Your task to perform on an android device: Clear the cart on costco.com. Search for "macbook" on costco.com, select the first entry, add it to the cart, then select checkout. Image 0: 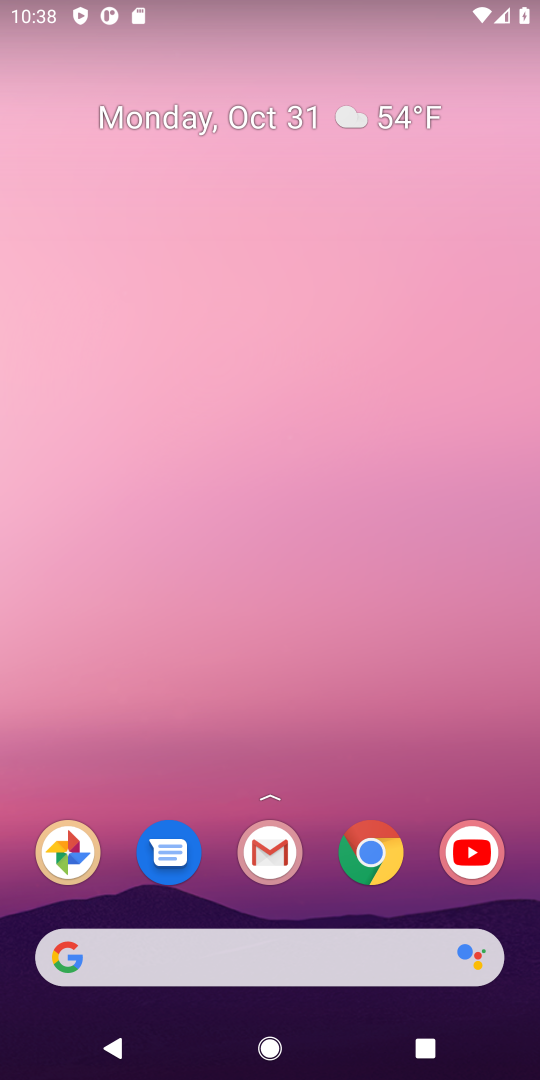
Step 0: click (362, 856)
Your task to perform on an android device: Clear the cart on costco.com. Search for "macbook" on costco.com, select the first entry, add it to the cart, then select checkout. Image 1: 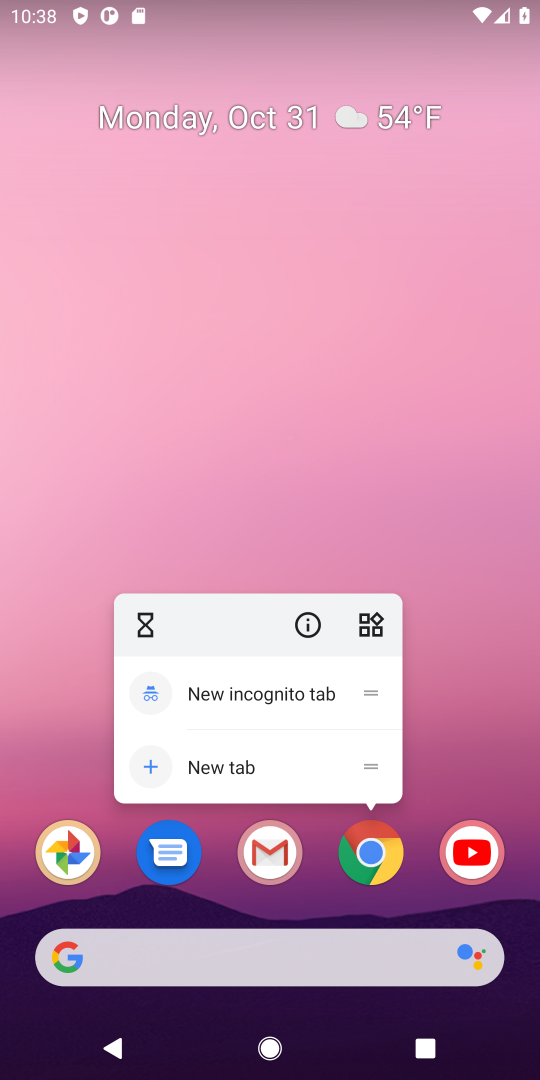
Step 1: click (378, 866)
Your task to perform on an android device: Clear the cart on costco.com. Search for "macbook" on costco.com, select the first entry, add it to the cart, then select checkout. Image 2: 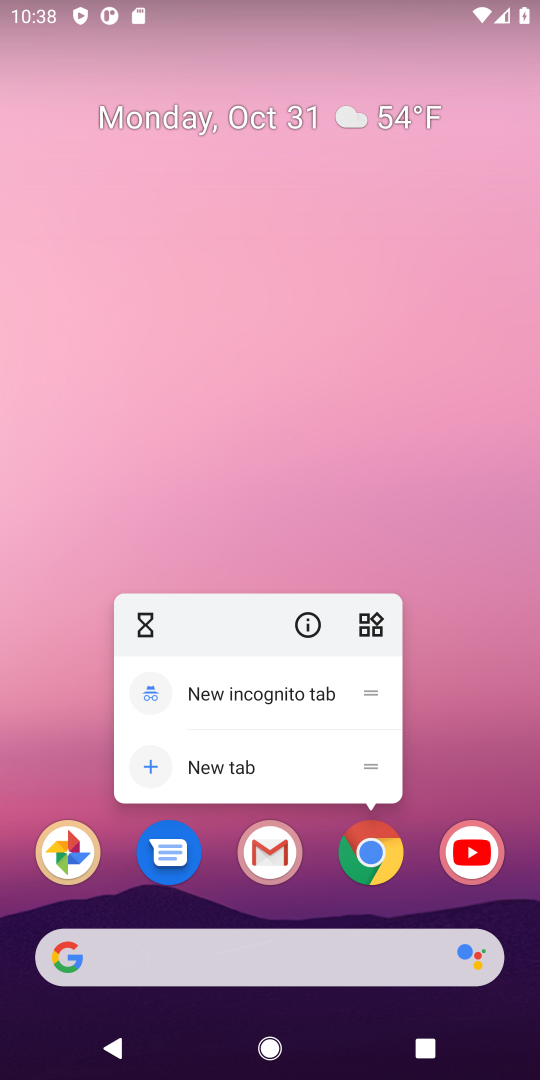
Step 2: click (366, 875)
Your task to perform on an android device: Clear the cart on costco.com. Search for "macbook" on costco.com, select the first entry, add it to the cart, then select checkout. Image 3: 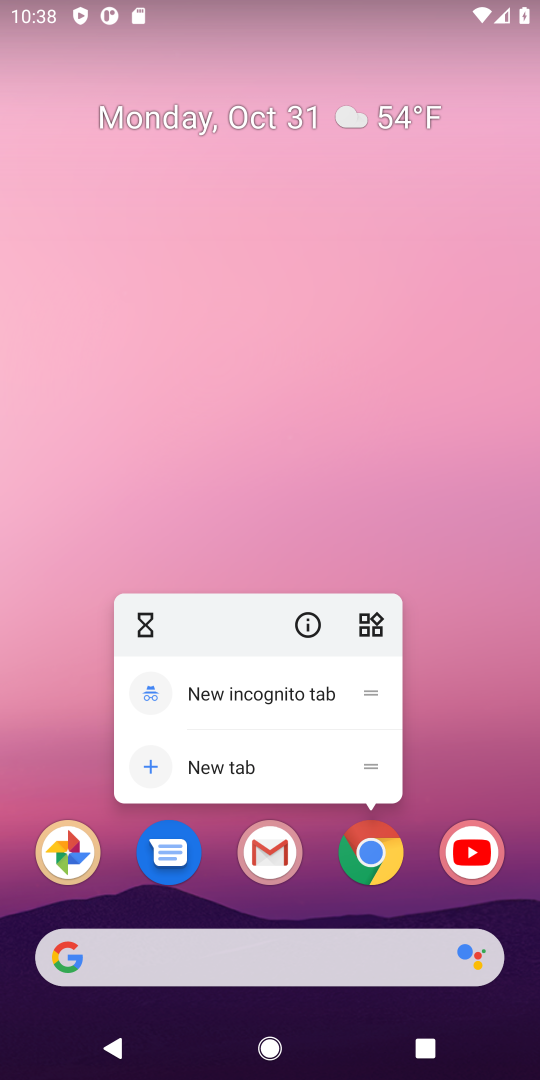
Step 3: click (372, 860)
Your task to perform on an android device: Clear the cart on costco.com. Search for "macbook" on costco.com, select the first entry, add it to the cart, then select checkout. Image 4: 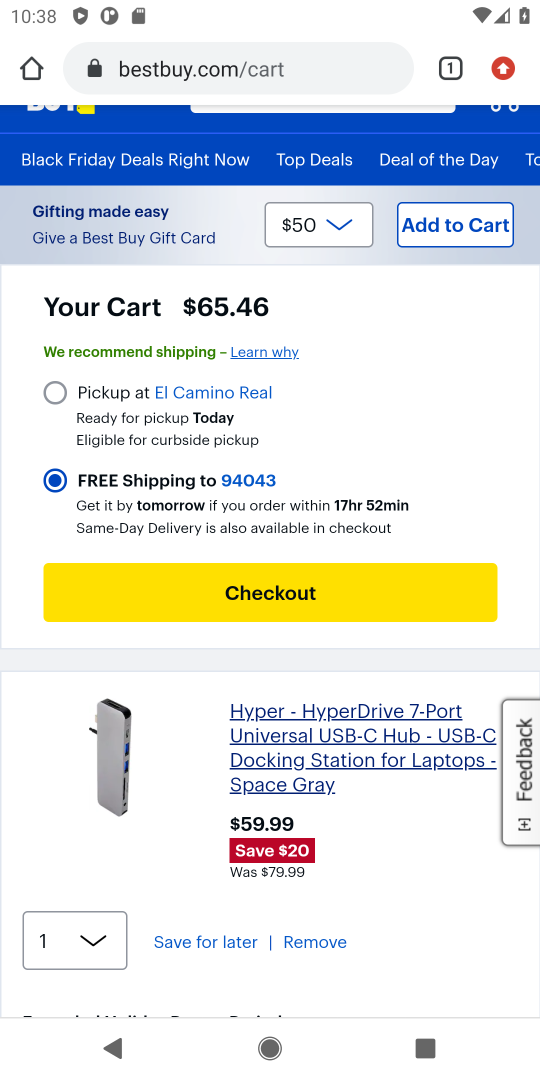
Step 4: click (245, 61)
Your task to perform on an android device: Clear the cart on costco.com. Search for "macbook" on costco.com, select the first entry, add it to the cart, then select checkout. Image 5: 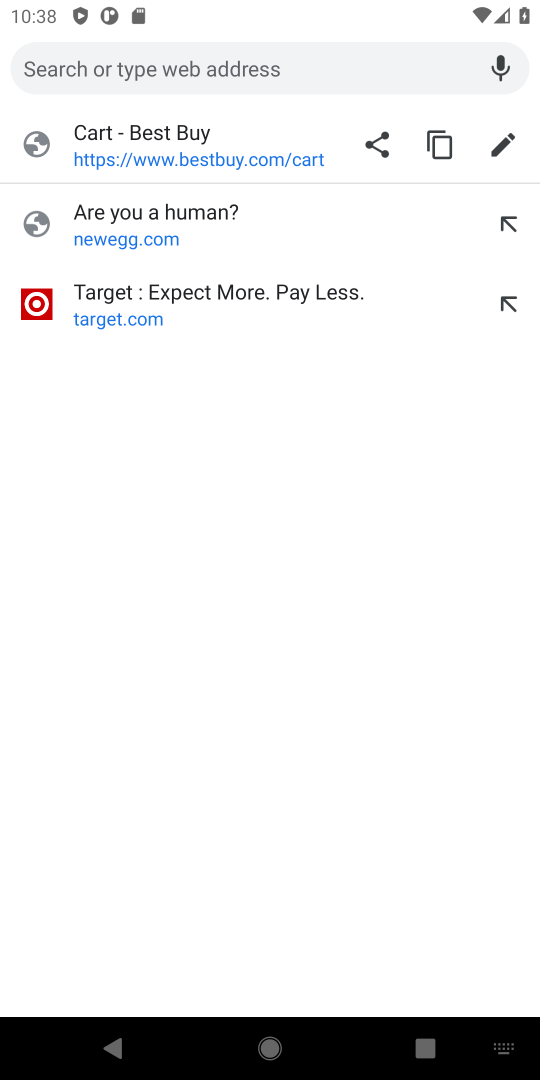
Step 5: type "costco.com"
Your task to perform on an android device: Clear the cart on costco.com. Search for "macbook" on costco.com, select the first entry, add it to the cart, then select checkout. Image 6: 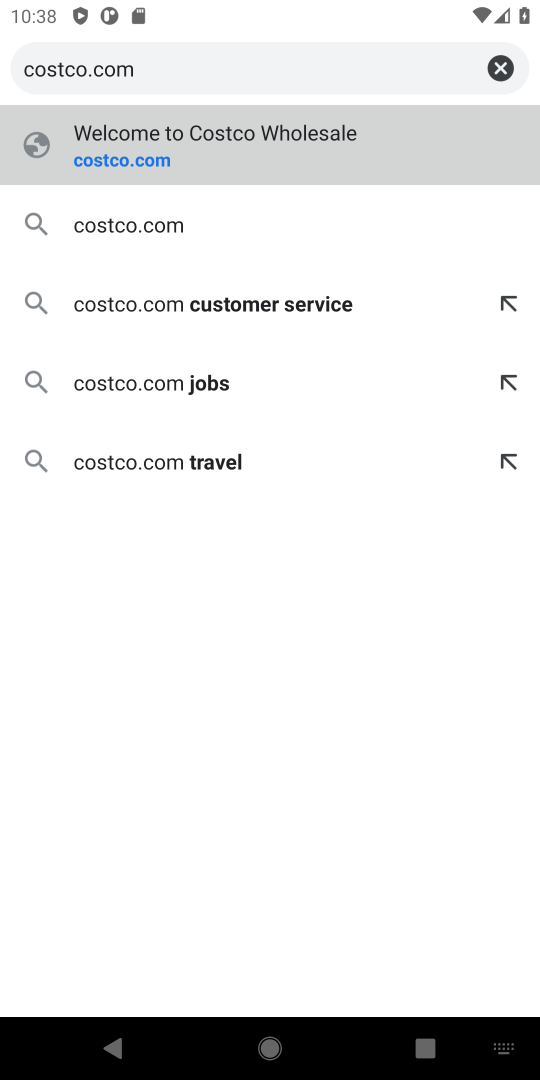
Step 6: type ""
Your task to perform on an android device: Clear the cart on costco.com. Search for "macbook" on costco.com, select the first entry, add it to the cart, then select checkout. Image 7: 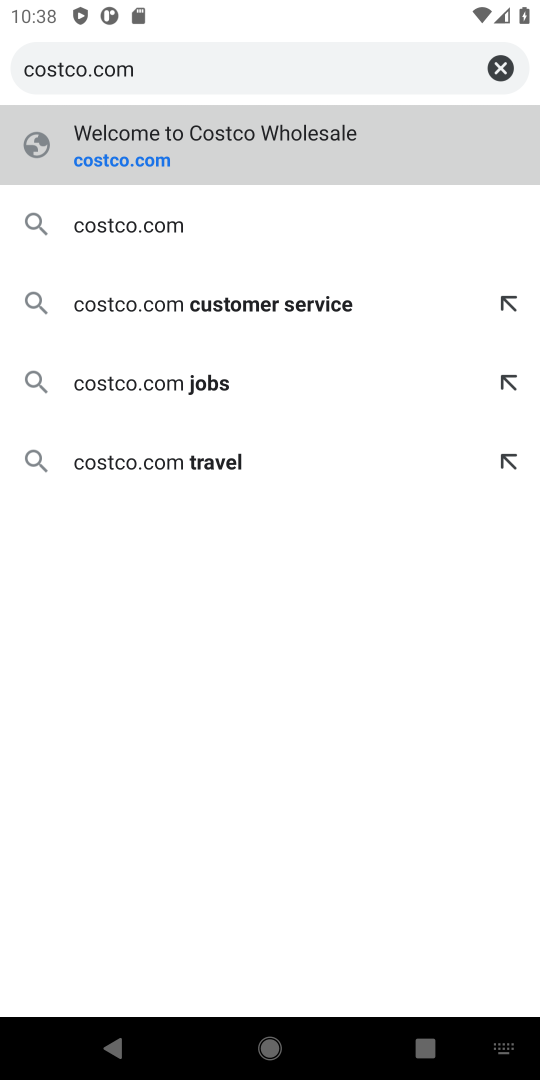
Step 7: press enter
Your task to perform on an android device: Clear the cart on costco.com. Search for "macbook" on costco.com, select the first entry, add it to the cart, then select checkout. Image 8: 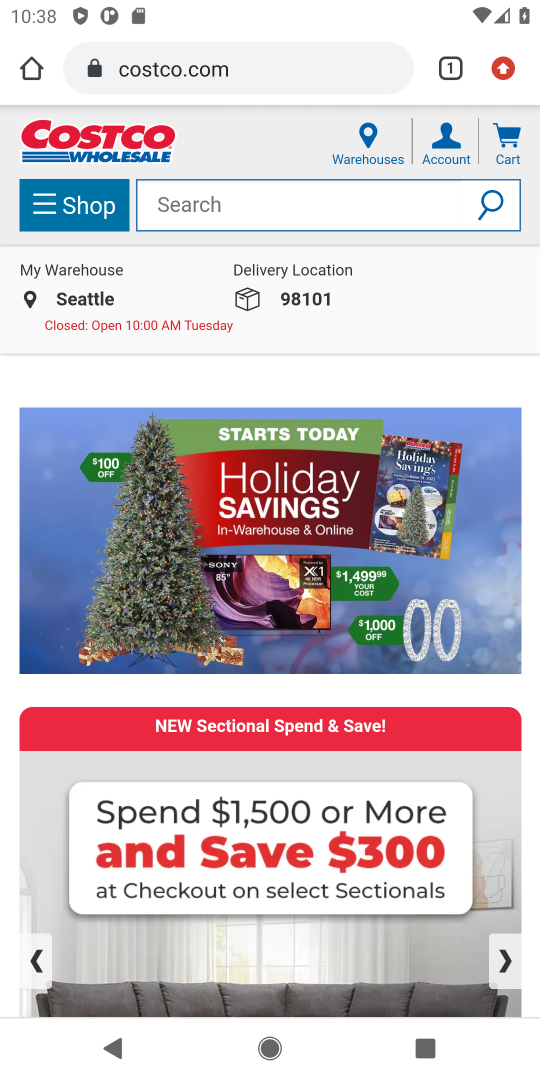
Step 8: click (231, 194)
Your task to perform on an android device: Clear the cart on costco.com. Search for "macbook" on costco.com, select the first entry, add it to the cart, then select checkout. Image 9: 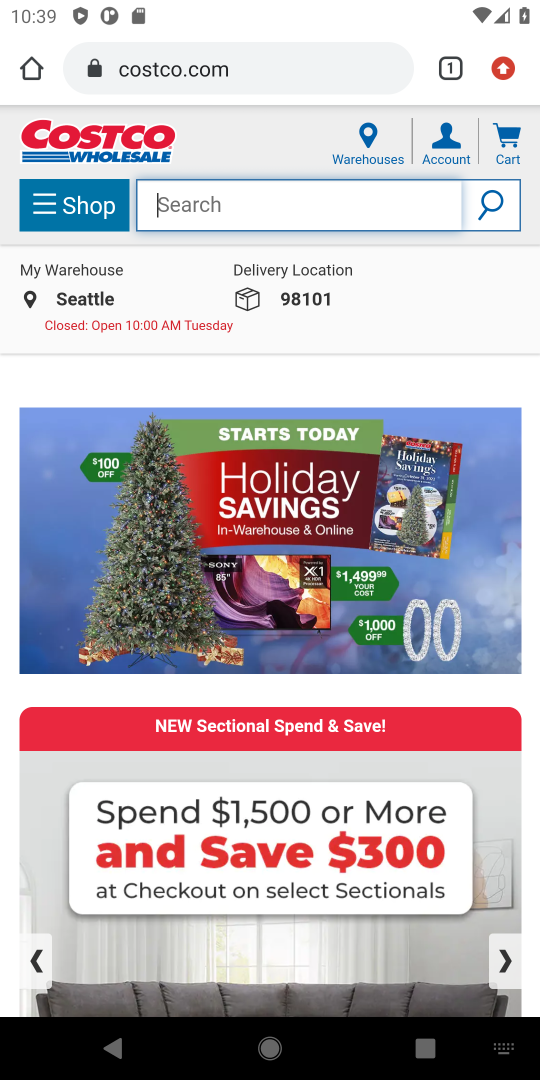
Step 9: type "macbook"
Your task to perform on an android device: Clear the cart on costco.com. Search for "macbook" on costco.com, select the first entry, add it to the cart, then select checkout. Image 10: 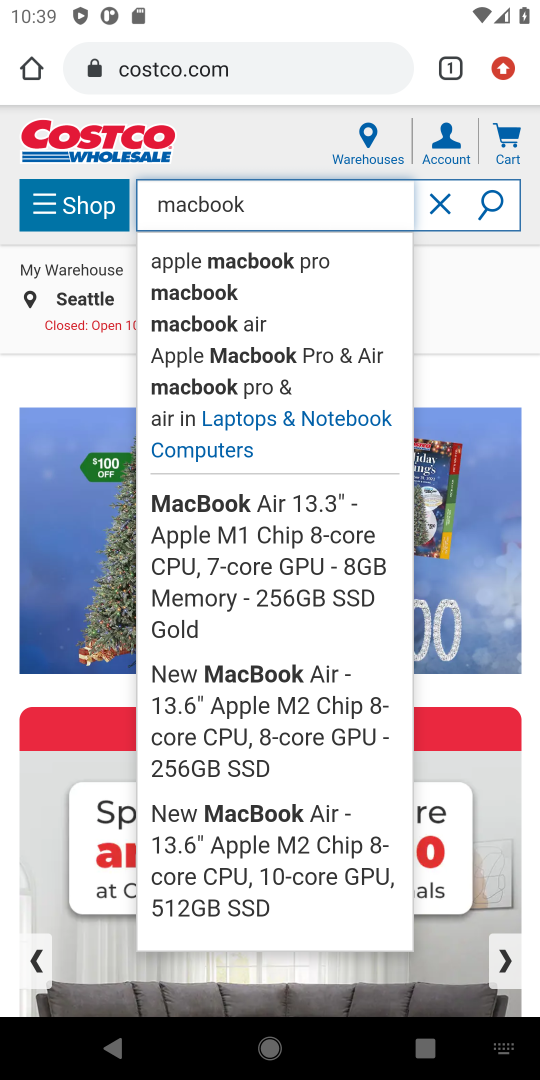
Step 10: press enter
Your task to perform on an android device: Clear the cart on costco.com. Search for "macbook" on costco.com, select the first entry, add it to the cart, then select checkout. Image 11: 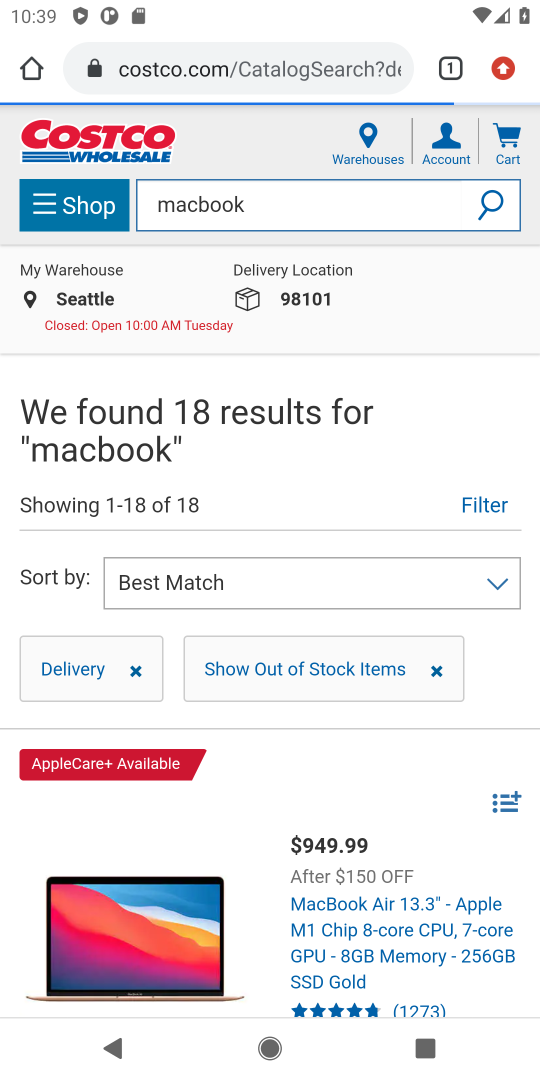
Step 11: click (361, 922)
Your task to perform on an android device: Clear the cart on costco.com. Search for "macbook" on costco.com, select the first entry, add it to the cart, then select checkout. Image 12: 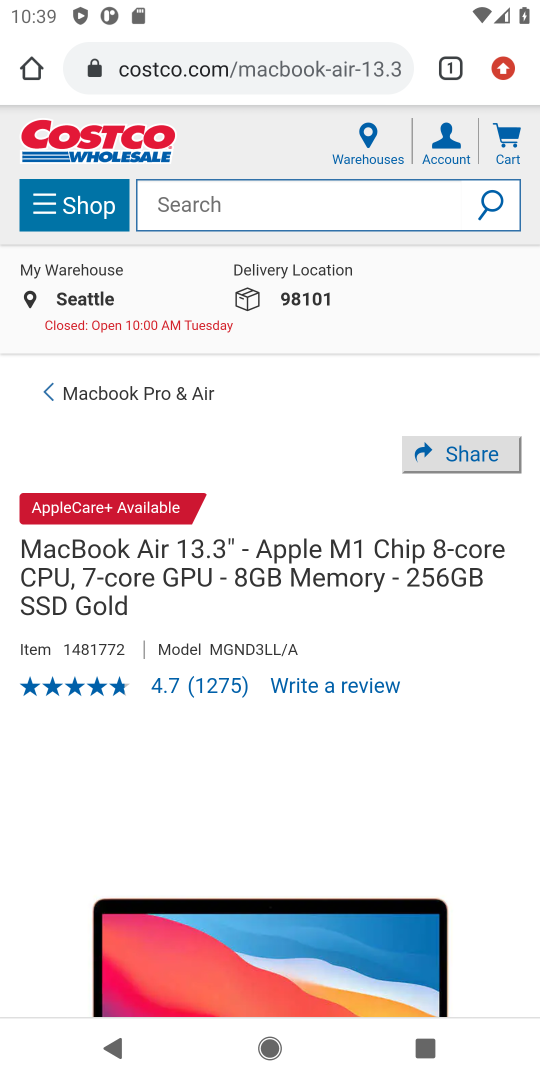
Step 12: drag from (400, 775) to (396, 248)
Your task to perform on an android device: Clear the cart on costco.com. Search for "macbook" on costco.com, select the first entry, add it to the cart, then select checkout. Image 13: 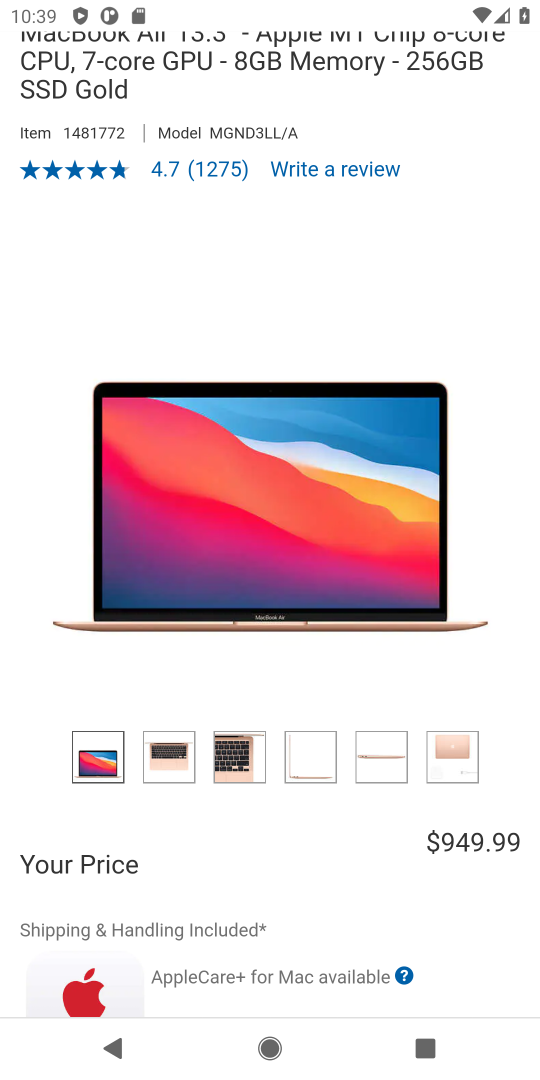
Step 13: drag from (358, 854) to (386, 275)
Your task to perform on an android device: Clear the cart on costco.com. Search for "macbook" on costco.com, select the first entry, add it to the cart, then select checkout. Image 14: 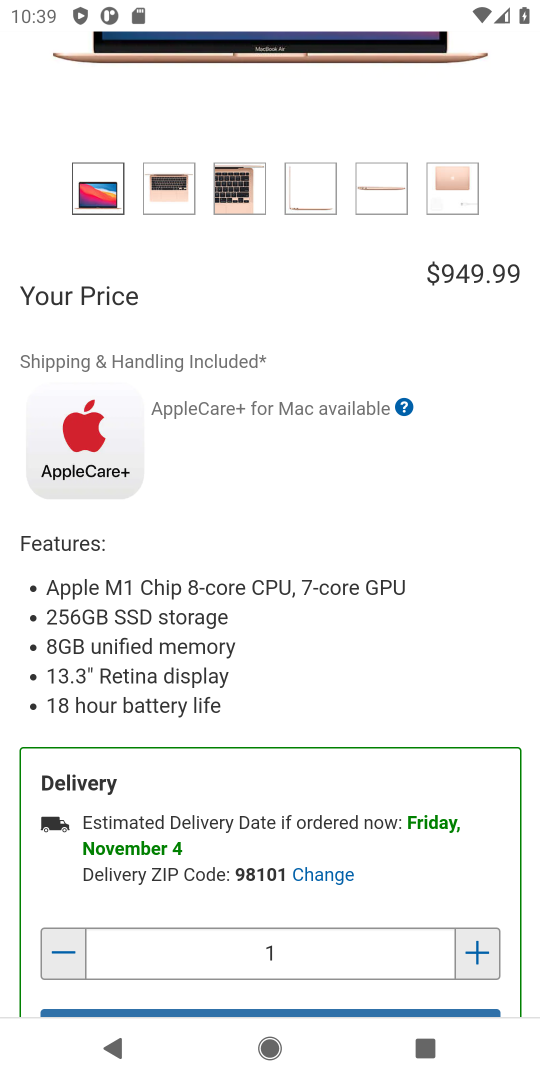
Step 14: drag from (242, 615) to (274, 237)
Your task to perform on an android device: Clear the cart on costco.com. Search for "macbook" on costco.com, select the first entry, add it to the cart, then select checkout. Image 15: 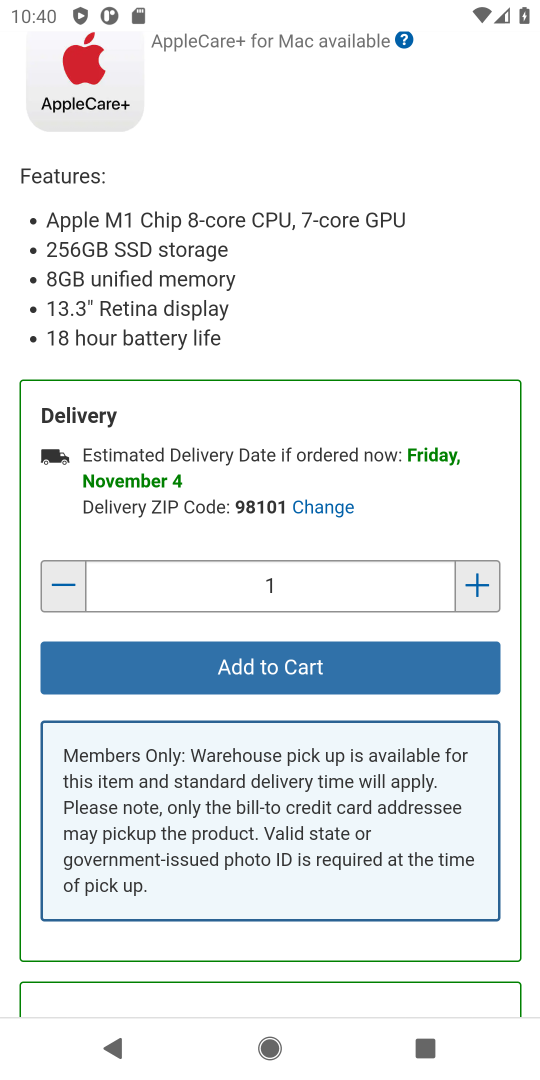
Step 15: drag from (335, 841) to (343, 496)
Your task to perform on an android device: Clear the cart on costco.com. Search for "macbook" on costco.com, select the first entry, add it to the cart, then select checkout. Image 16: 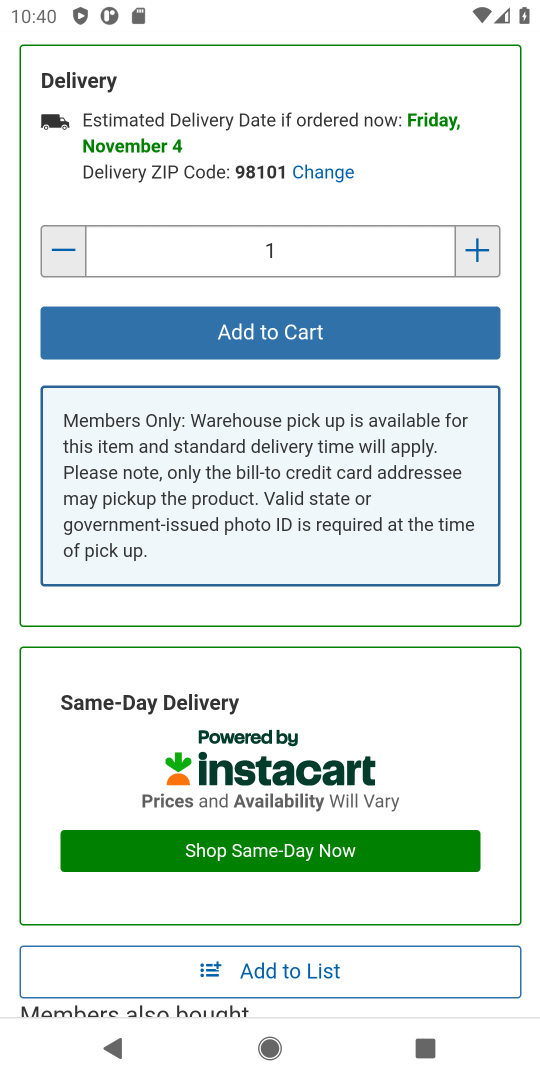
Step 16: click (342, 343)
Your task to perform on an android device: Clear the cart on costco.com. Search for "macbook" on costco.com, select the first entry, add it to the cart, then select checkout. Image 17: 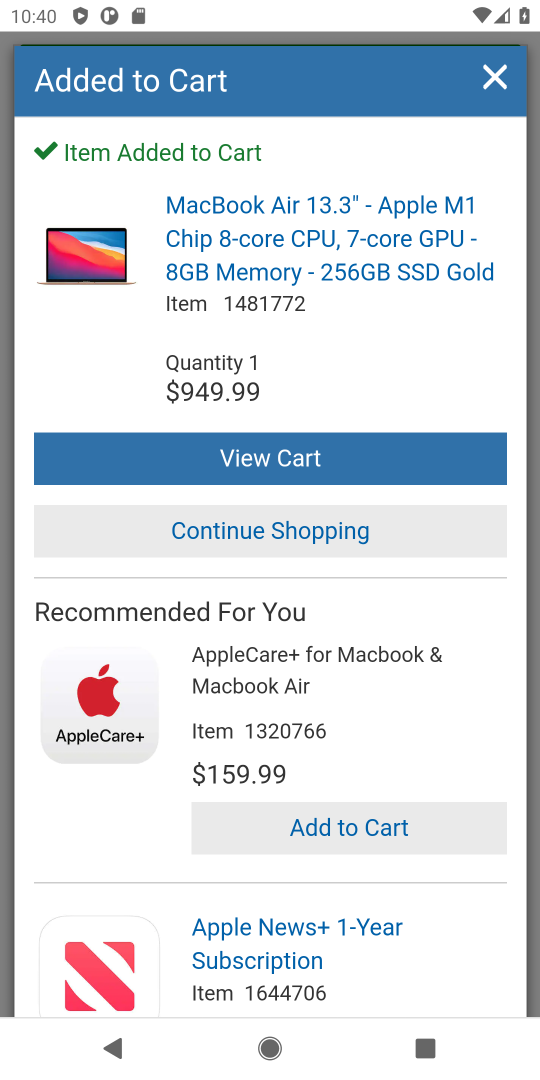
Step 17: click (338, 464)
Your task to perform on an android device: Clear the cart on costco.com. Search for "macbook" on costco.com, select the first entry, add it to the cart, then select checkout. Image 18: 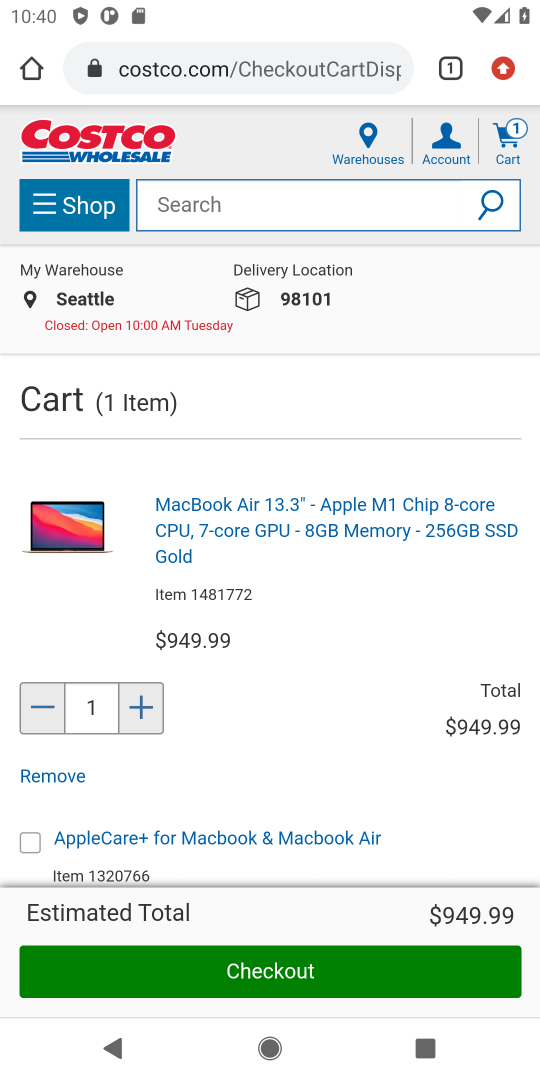
Step 18: drag from (250, 810) to (262, 525)
Your task to perform on an android device: Clear the cart on costco.com. Search for "macbook" on costco.com, select the first entry, add it to the cart, then select checkout. Image 19: 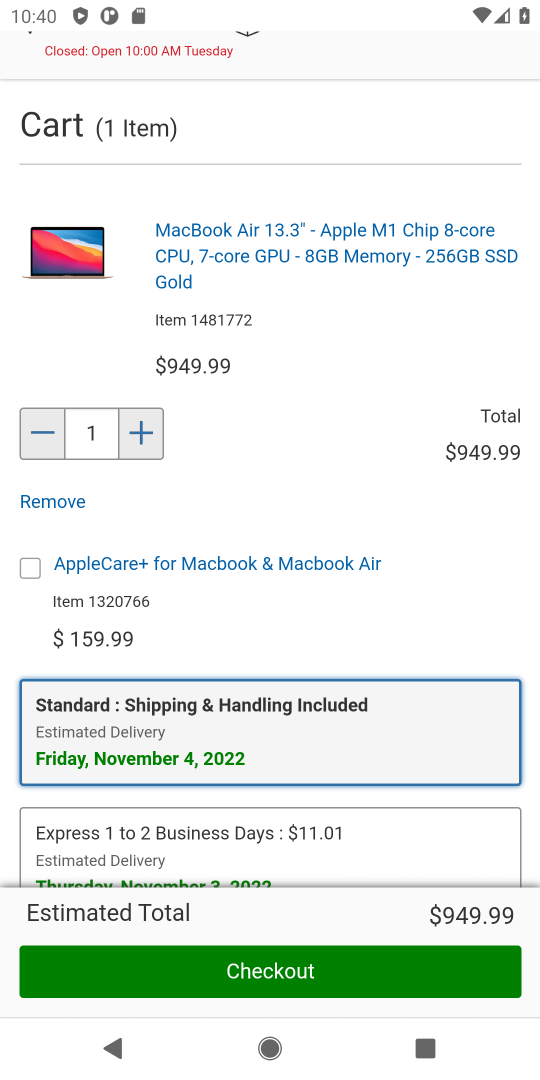
Step 19: click (336, 964)
Your task to perform on an android device: Clear the cart on costco.com. Search for "macbook" on costco.com, select the first entry, add it to the cart, then select checkout. Image 20: 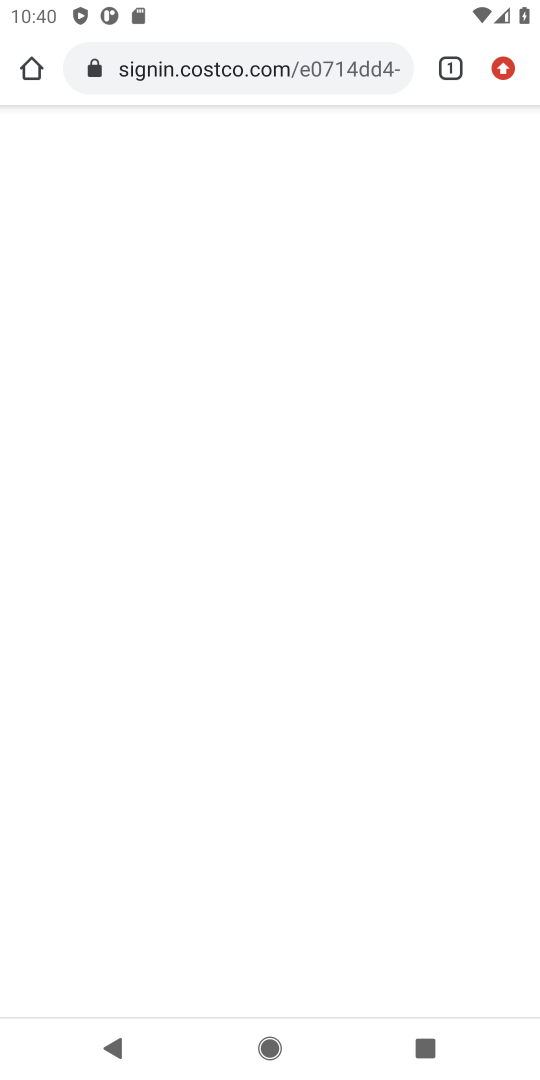
Step 20: task complete